Your task to perform on an android device: turn off translation in the chrome app Image 0: 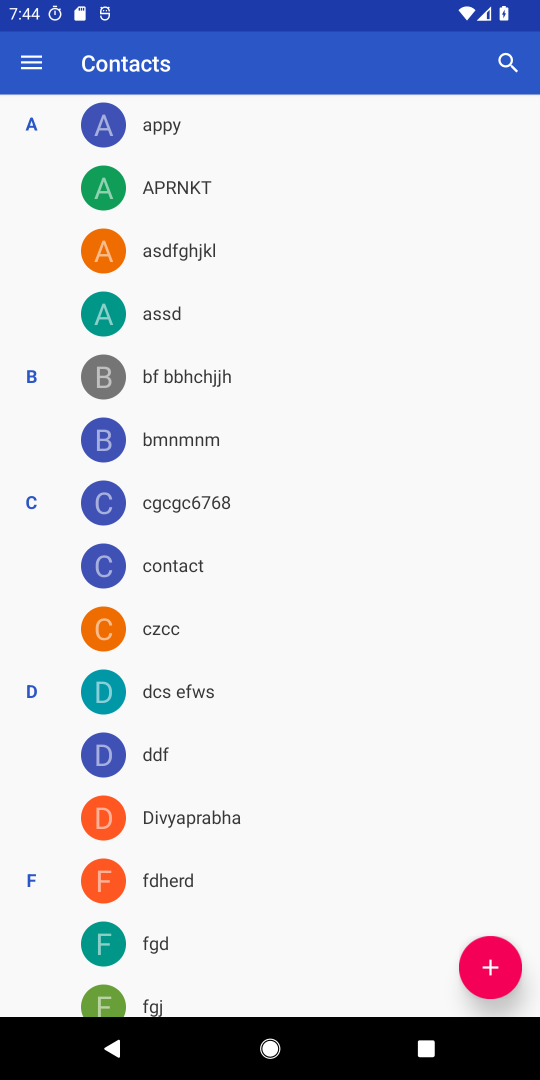
Step 0: drag from (389, 855) to (331, 383)
Your task to perform on an android device: turn off translation in the chrome app Image 1: 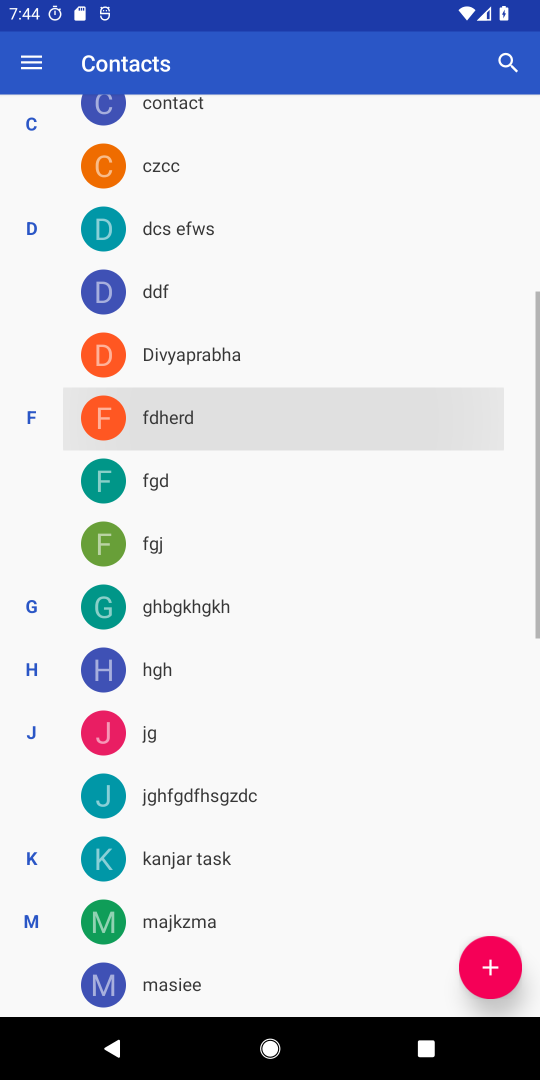
Step 1: press back button
Your task to perform on an android device: turn off translation in the chrome app Image 2: 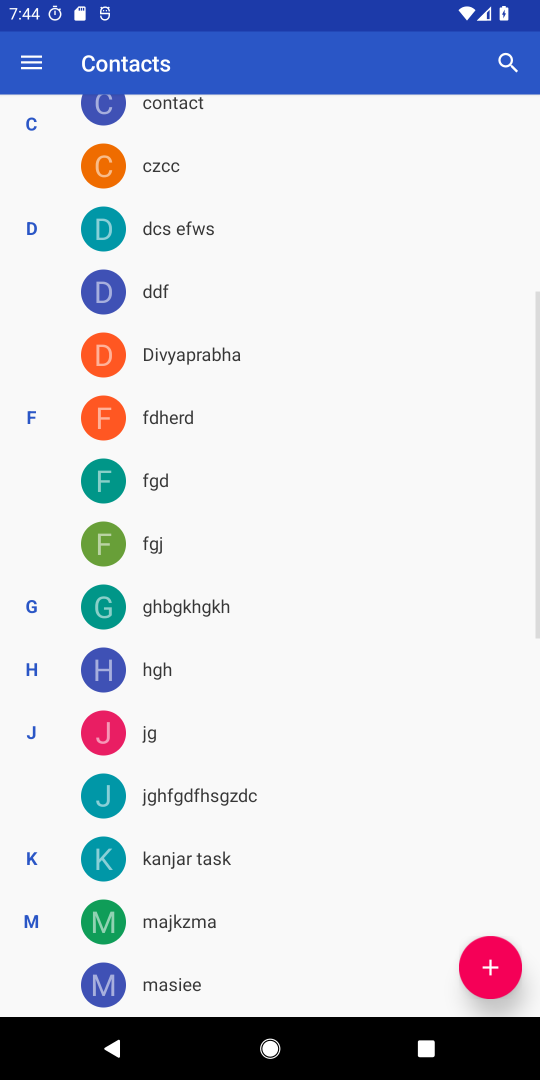
Step 2: press back button
Your task to perform on an android device: turn off translation in the chrome app Image 3: 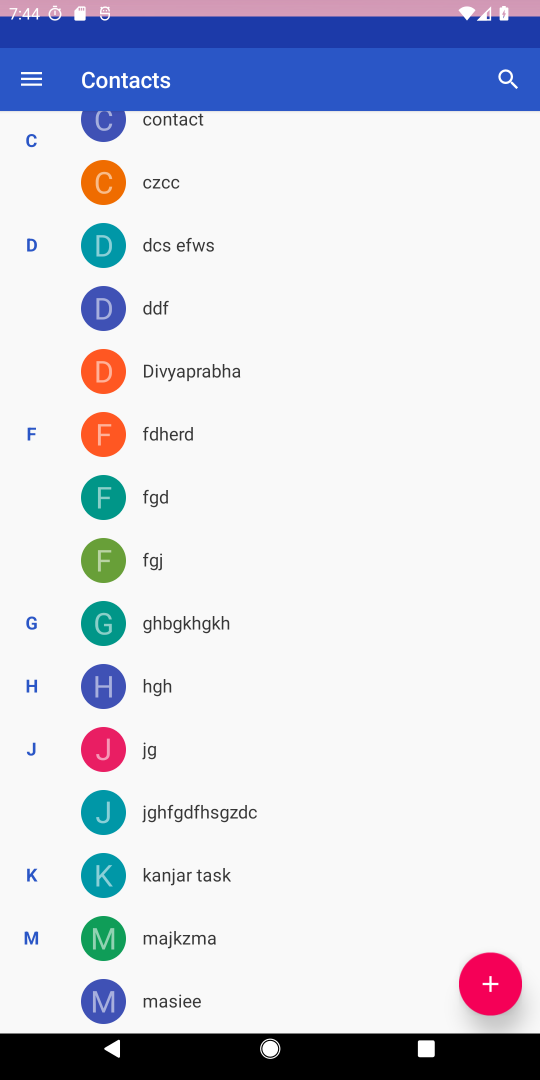
Step 3: press back button
Your task to perform on an android device: turn off translation in the chrome app Image 4: 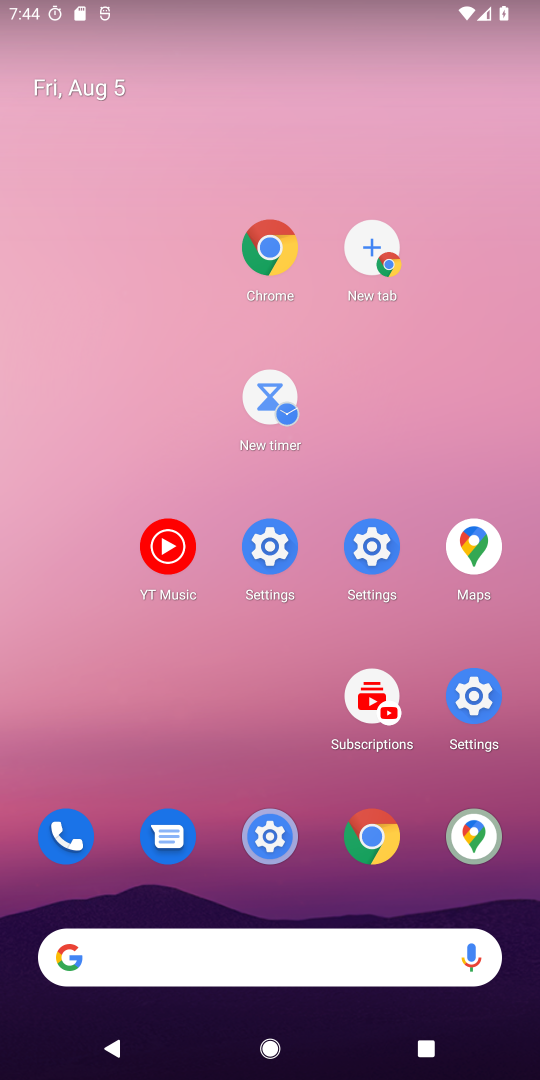
Step 4: press back button
Your task to perform on an android device: turn off translation in the chrome app Image 5: 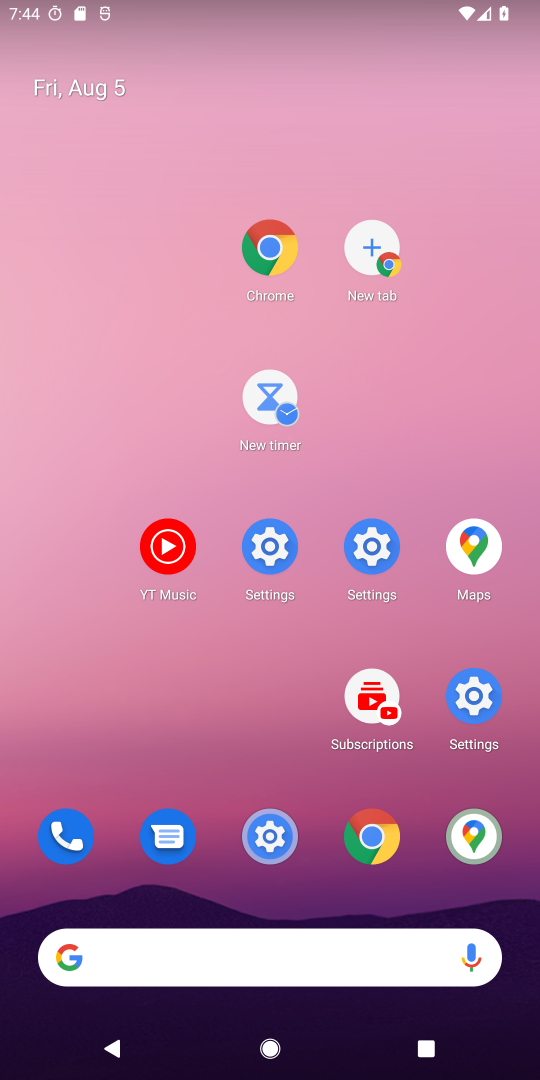
Step 5: drag from (328, 786) to (224, 273)
Your task to perform on an android device: turn off translation in the chrome app Image 6: 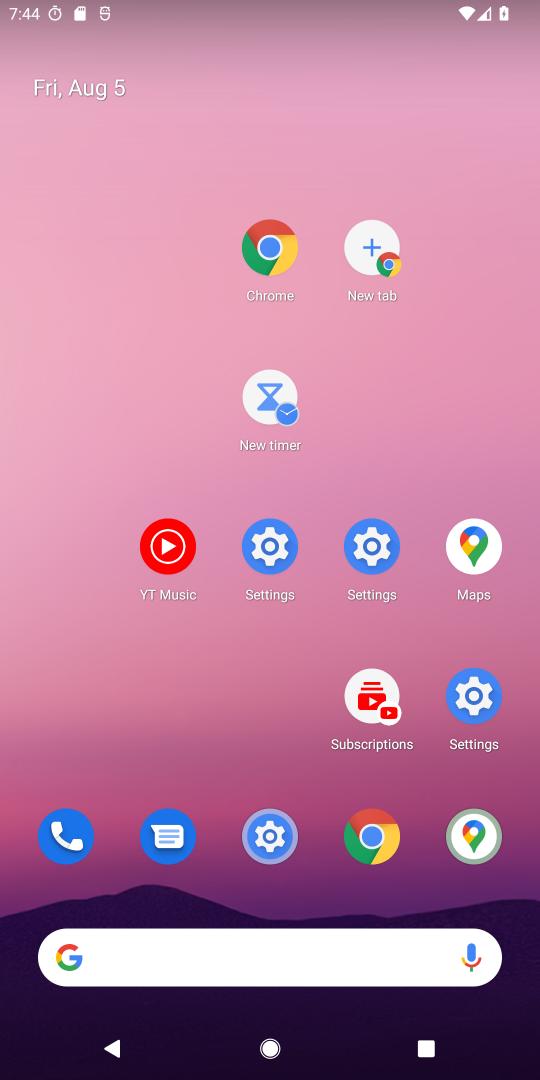
Step 6: drag from (429, 993) to (296, 243)
Your task to perform on an android device: turn off translation in the chrome app Image 7: 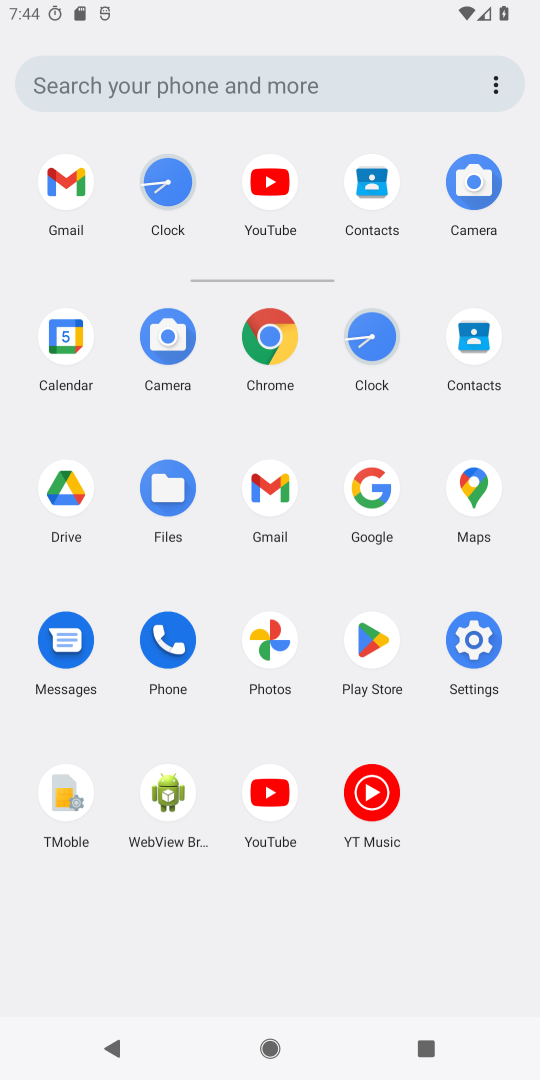
Step 7: drag from (335, 774) to (313, 238)
Your task to perform on an android device: turn off translation in the chrome app Image 8: 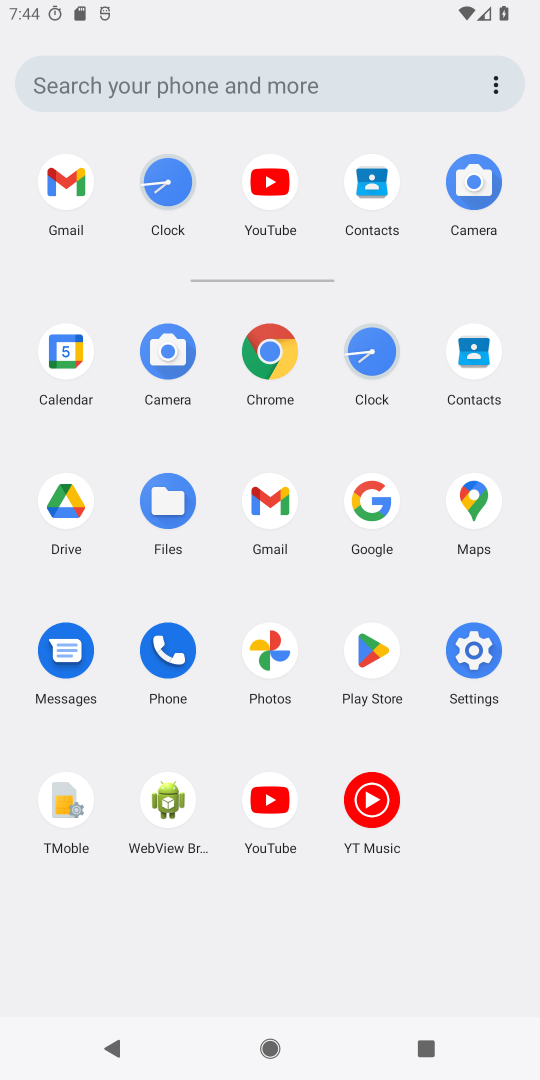
Step 8: click (277, 351)
Your task to perform on an android device: turn off translation in the chrome app Image 9: 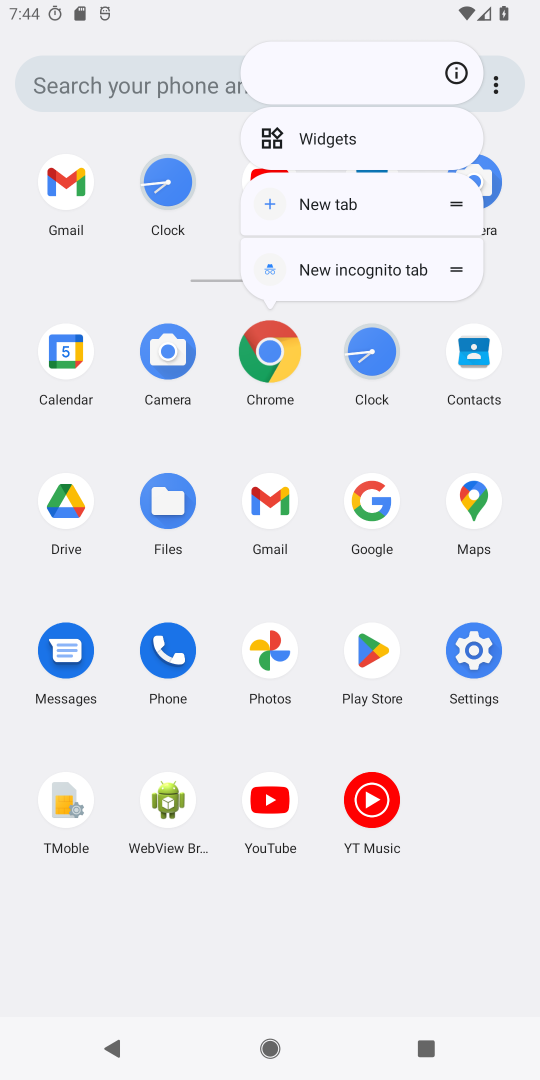
Step 9: click (276, 352)
Your task to perform on an android device: turn off translation in the chrome app Image 10: 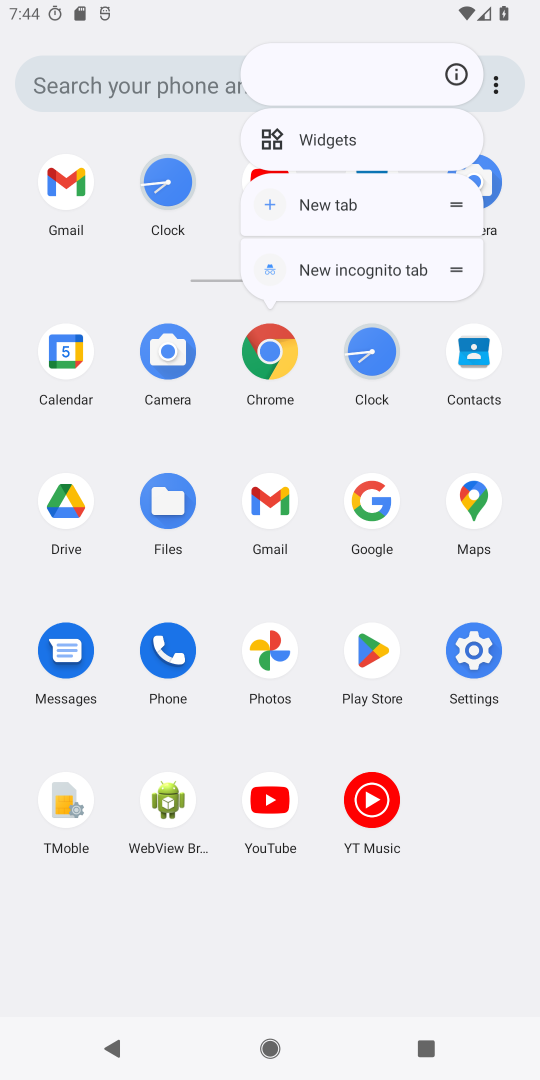
Step 10: click (276, 354)
Your task to perform on an android device: turn off translation in the chrome app Image 11: 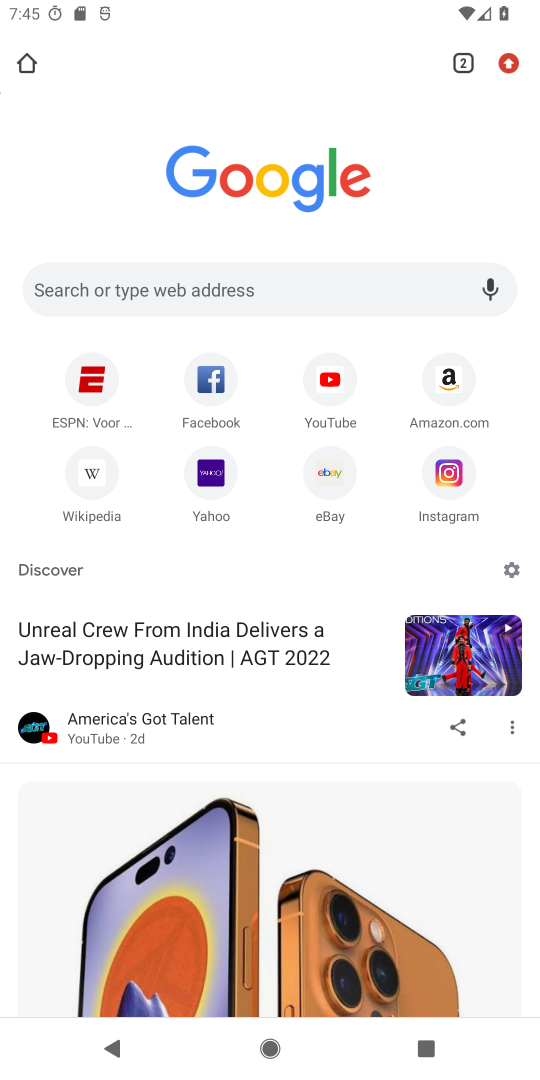
Step 11: click (492, 62)
Your task to perform on an android device: turn off translation in the chrome app Image 12: 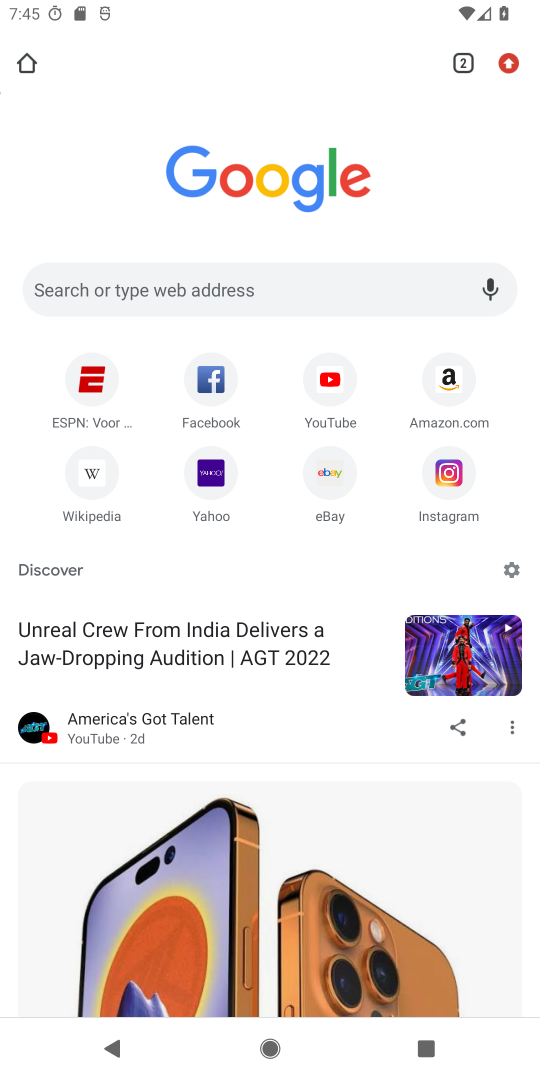
Step 12: click (497, 67)
Your task to perform on an android device: turn off translation in the chrome app Image 13: 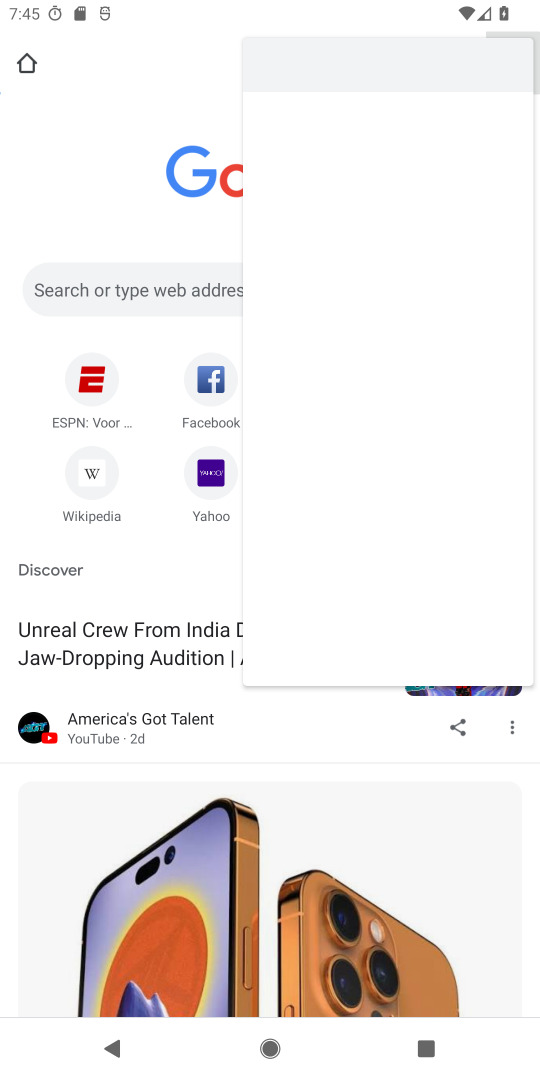
Step 13: click (497, 67)
Your task to perform on an android device: turn off translation in the chrome app Image 14: 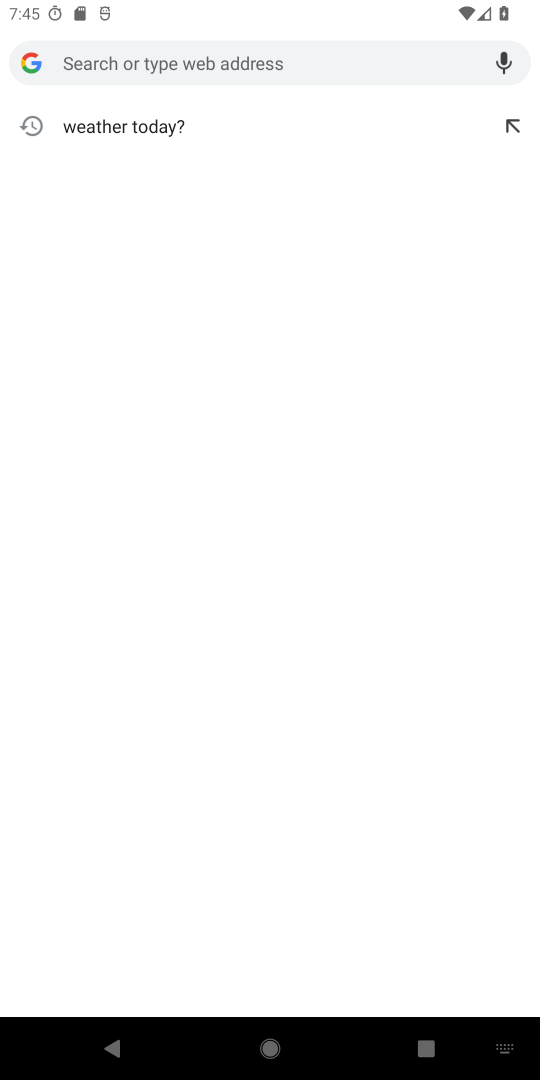
Step 14: press back button
Your task to perform on an android device: turn off translation in the chrome app Image 15: 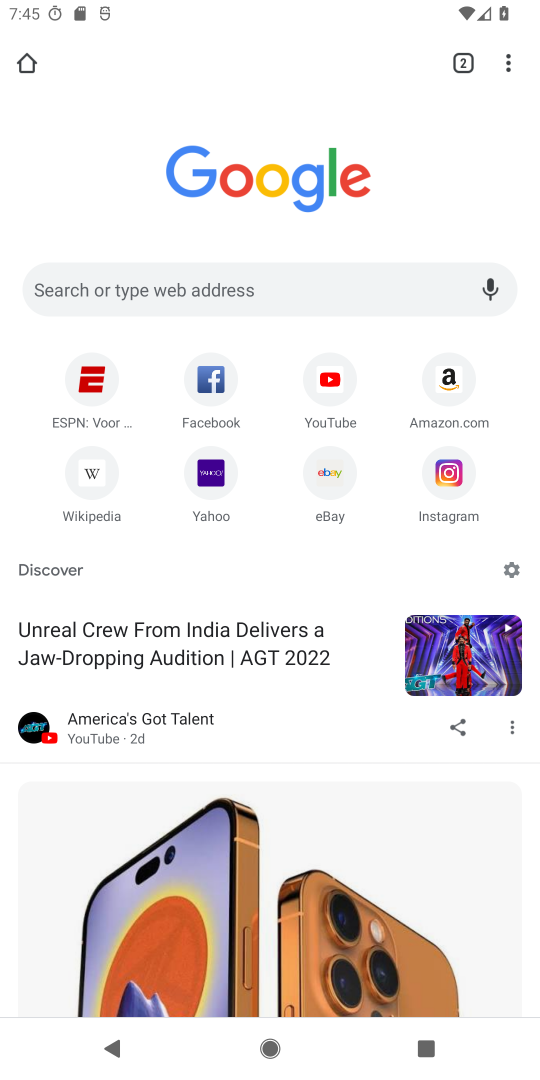
Step 15: drag from (508, 56) to (358, 595)
Your task to perform on an android device: turn off translation in the chrome app Image 16: 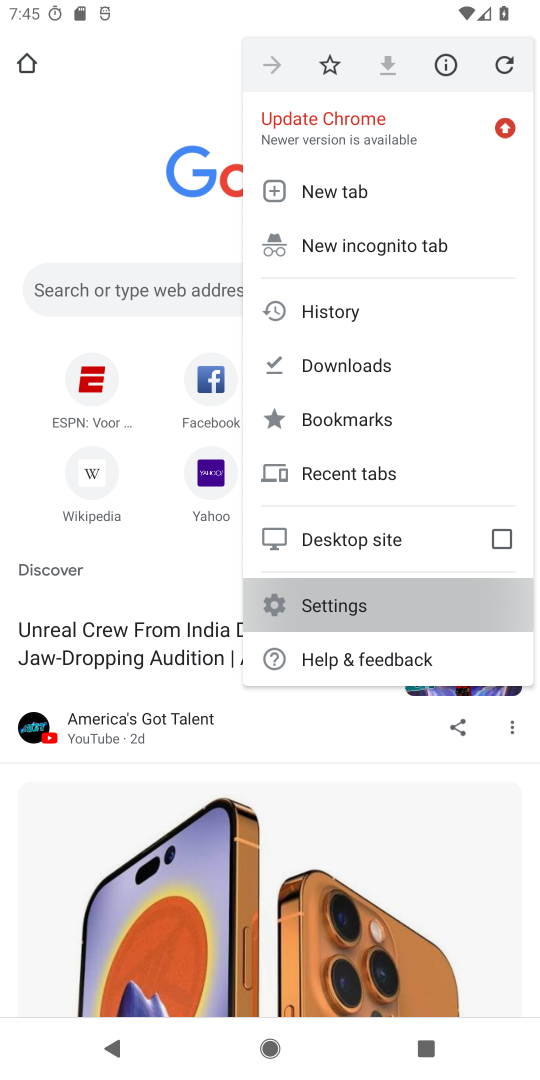
Step 16: click (356, 600)
Your task to perform on an android device: turn off translation in the chrome app Image 17: 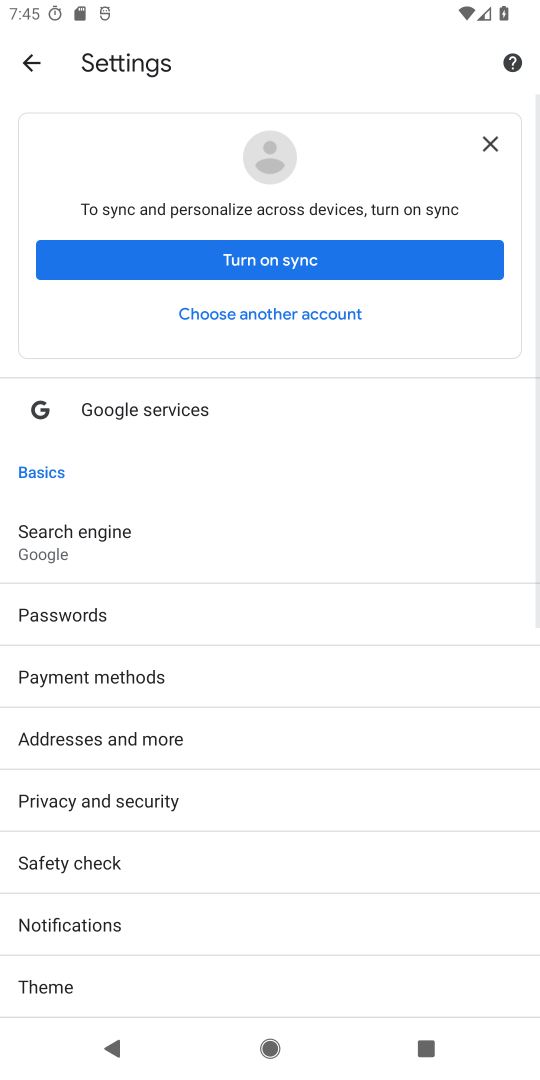
Step 17: drag from (133, 770) to (75, 170)
Your task to perform on an android device: turn off translation in the chrome app Image 18: 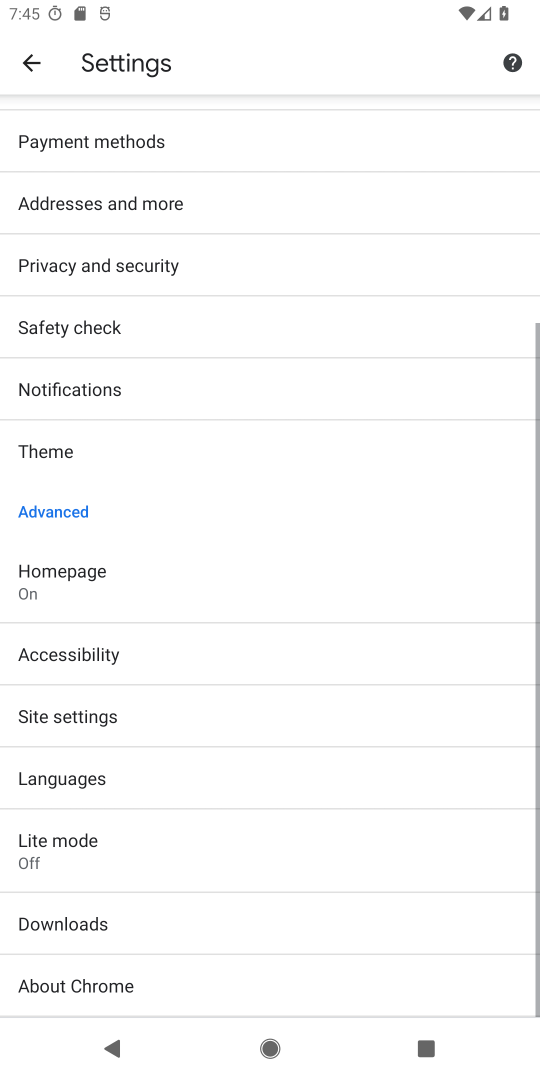
Step 18: drag from (180, 645) to (157, 460)
Your task to perform on an android device: turn off translation in the chrome app Image 19: 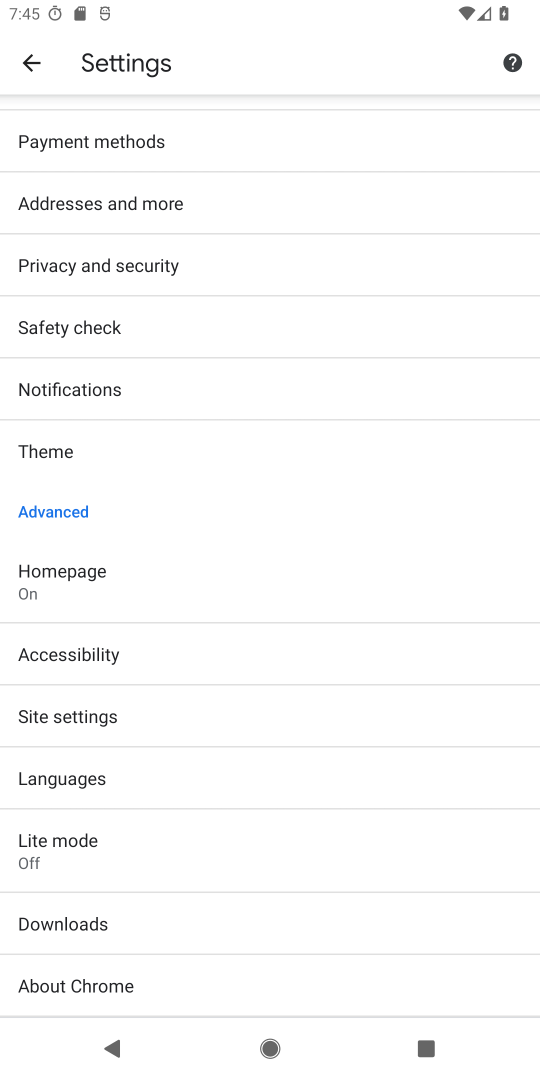
Step 19: click (110, 777)
Your task to perform on an android device: turn off translation in the chrome app Image 20: 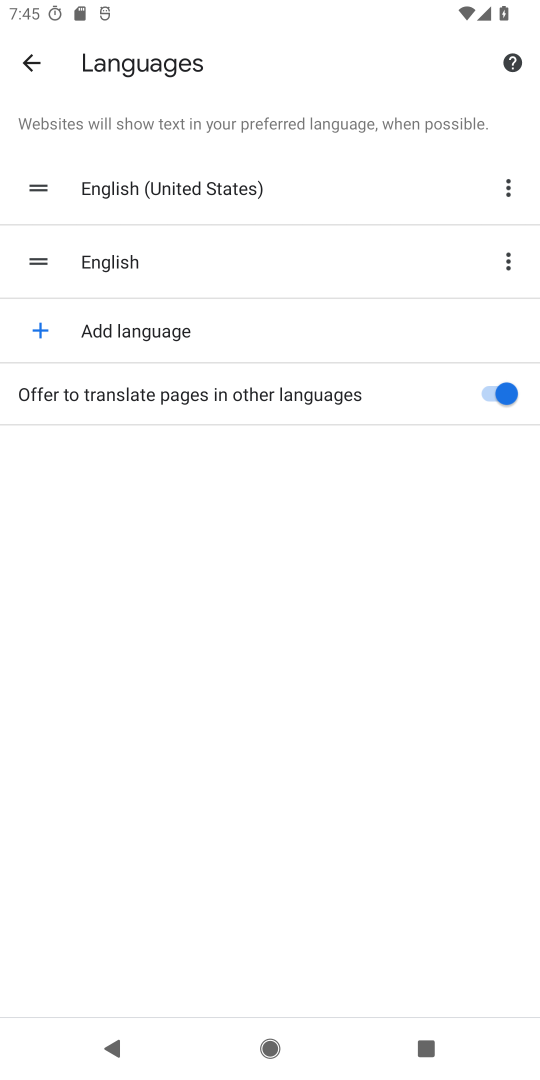
Step 20: click (503, 382)
Your task to perform on an android device: turn off translation in the chrome app Image 21: 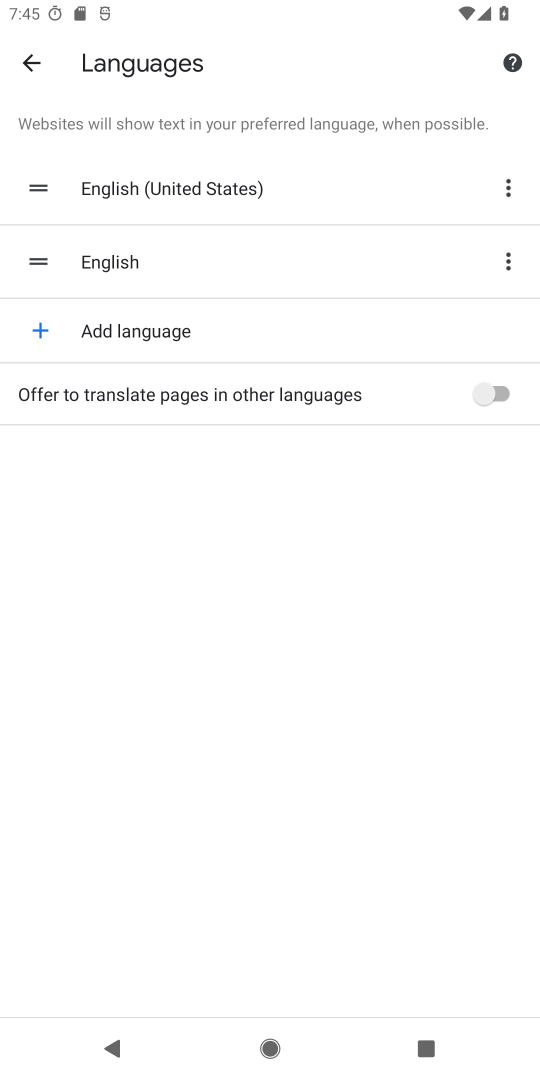
Step 21: task complete